Your task to perform on an android device: Show me productivity apps on the Play Store Image 0: 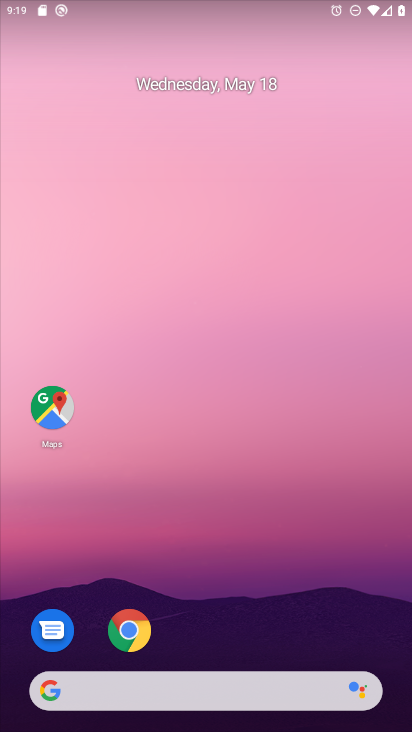
Step 0: drag from (220, 656) to (192, 112)
Your task to perform on an android device: Show me productivity apps on the Play Store Image 1: 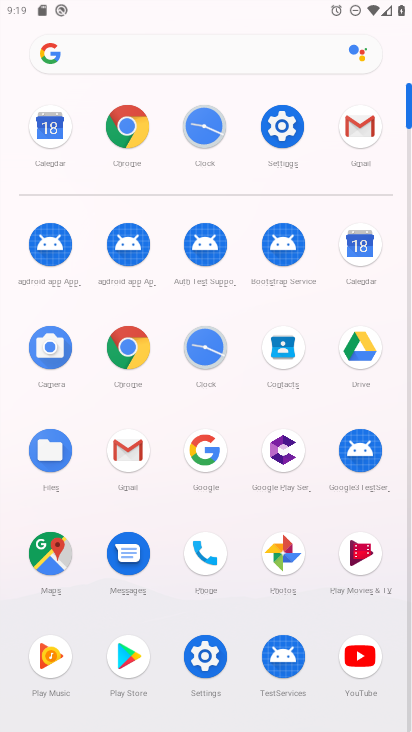
Step 1: click (126, 663)
Your task to perform on an android device: Show me productivity apps on the Play Store Image 2: 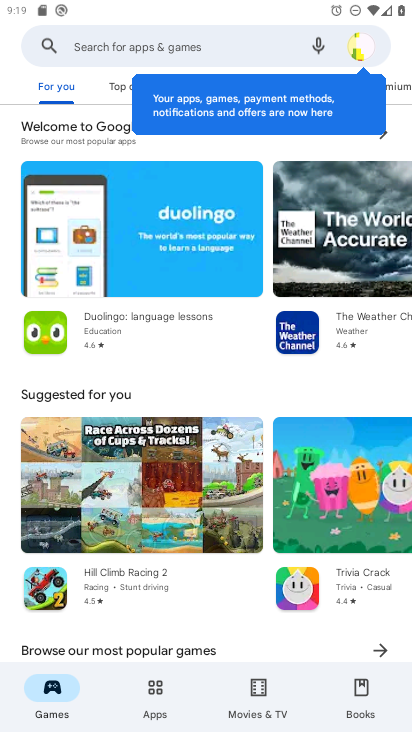
Step 2: click (154, 682)
Your task to perform on an android device: Show me productivity apps on the Play Store Image 3: 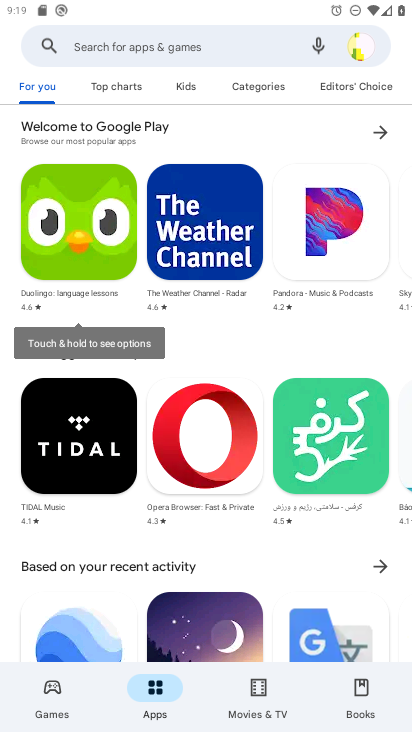
Step 3: click (257, 95)
Your task to perform on an android device: Show me productivity apps on the Play Store Image 4: 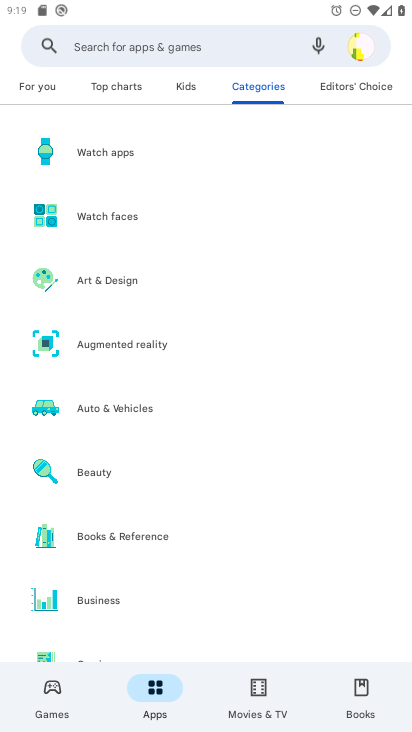
Step 4: drag from (233, 589) to (189, 14)
Your task to perform on an android device: Show me productivity apps on the Play Store Image 5: 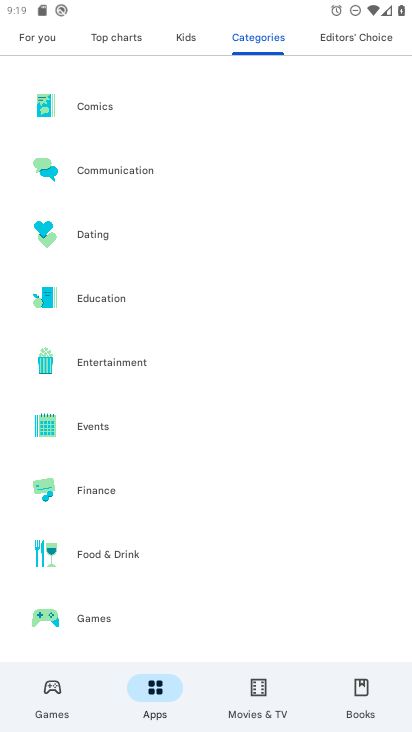
Step 5: drag from (170, 581) to (142, 47)
Your task to perform on an android device: Show me productivity apps on the Play Store Image 6: 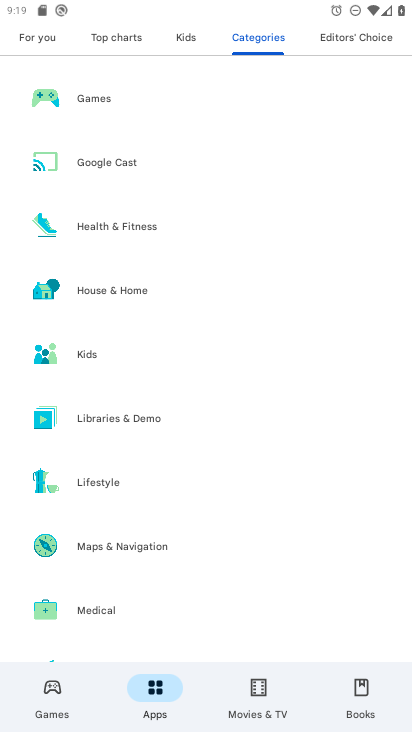
Step 6: drag from (171, 581) to (182, 6)
Your task to perform on an android device: Show me productivity apps on the Play Store Image 7: 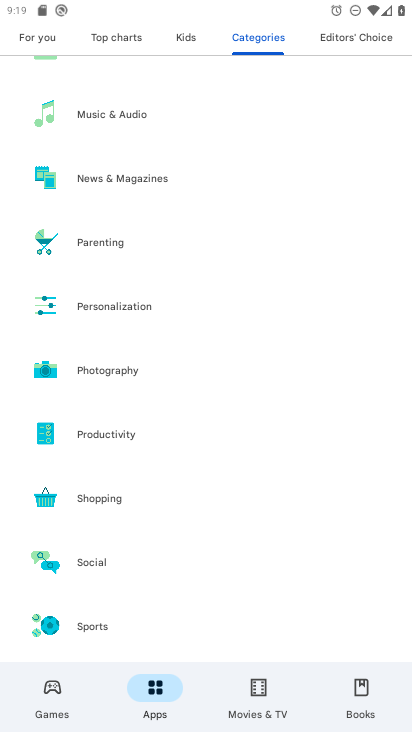
Step 7: click (109, 429)
Your task to perform on an android device: Show me productivity apps on the Play Store Image 8: 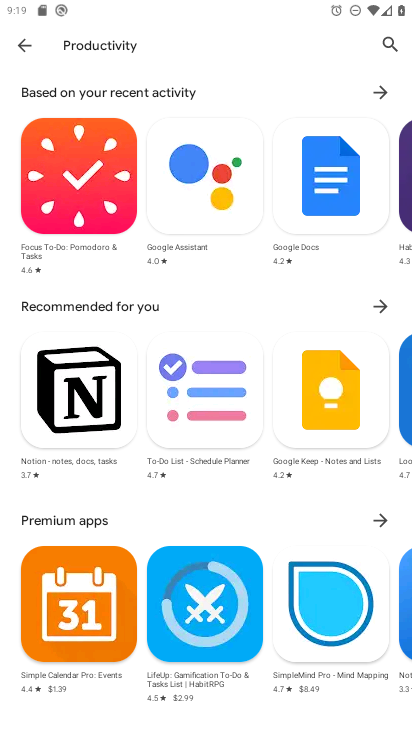
Step 8: task complete